Your task to perform on an android device: delete the emails in spam in the gmail app Image 0: 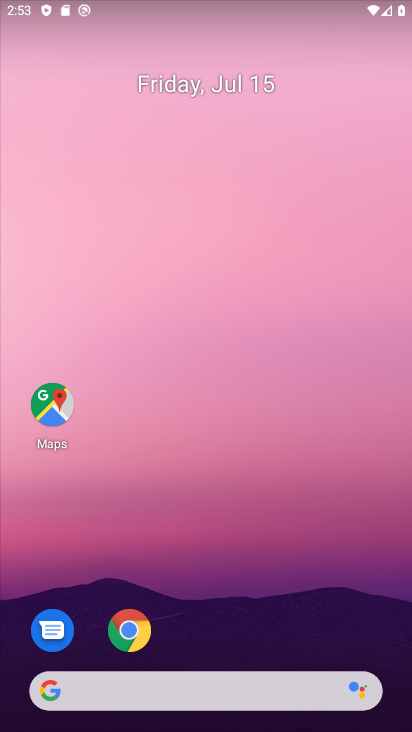
Step 0: drag from (214, 348) to (256, 128)
Your task to perform on an android device: delete the emails in spam in the gmail app Image 1: 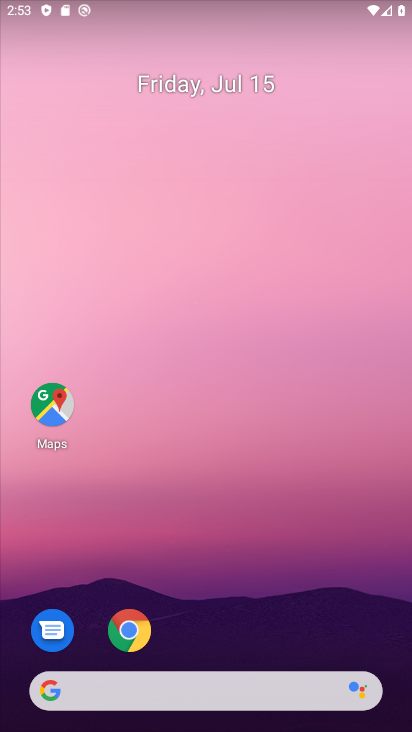
Step 1: drag from (187, 731) to (318, 104)
Your task to perform on an android device: delete the emails in spam in the gmail app Image 2: 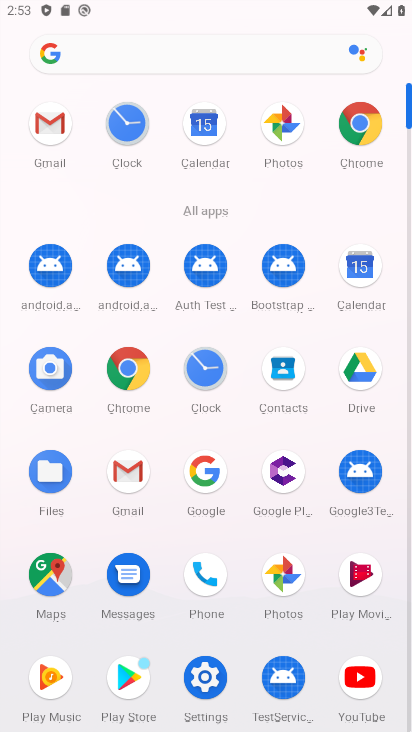
Step 2: click (52, 131)
Your task to perform on an android device: delete the emails in spam in the gmail app Image 3: 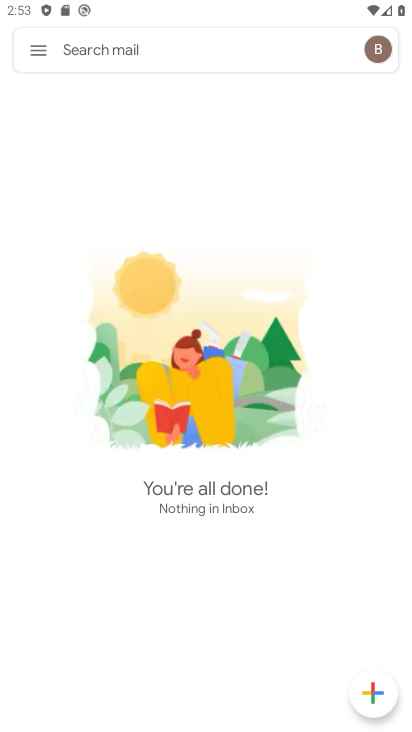
Step 3: click (35, 47)
Your task to perform on an android device: delete the emails in spam in the gmail app Image 4: 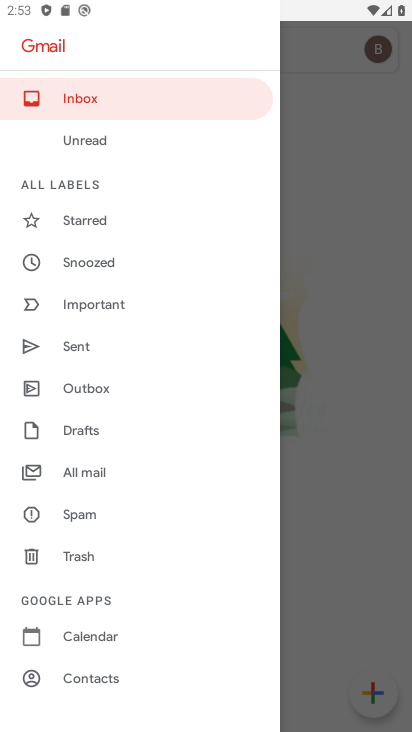
Step 4: click (97, 514)
Your task to perform on an android device: delete the emails in spam in the gmail app Image 5: 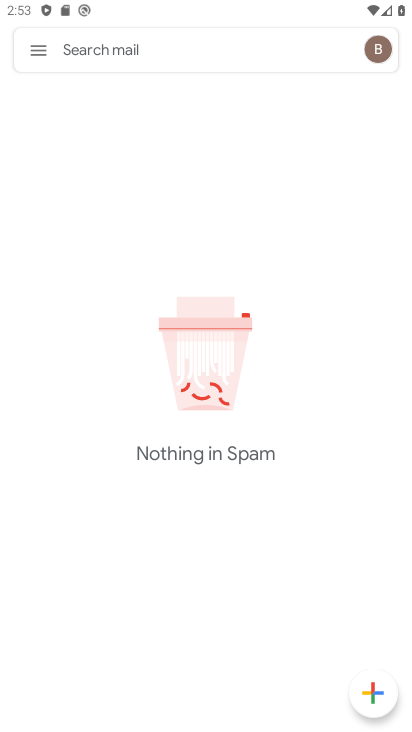
Step 5: task complete